Your task to perform on an android device: Go to location settings Image 0: 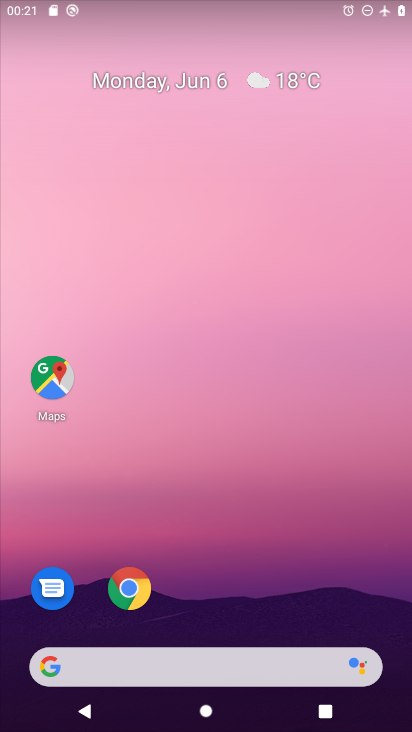
Step 0: drag from (361, 612) to (366, 321)
Your task to perform on an android device: Go to location settings Image 1: 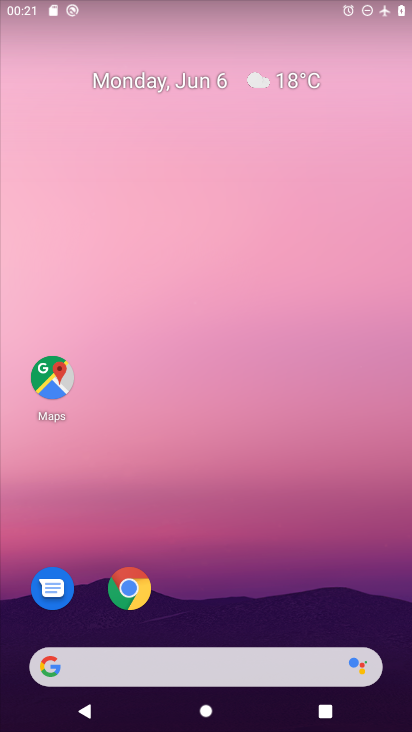
Step 1: drag from (364, 583) to (360, 177)
Your task to perform on an android device: Go to location settings Image 2: 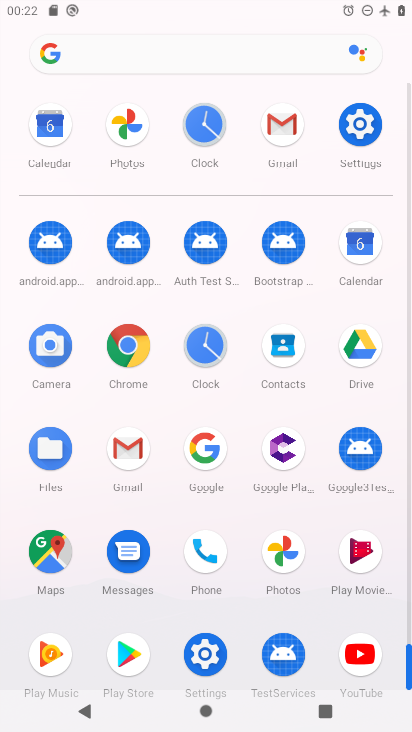
Step 2: click (215, 658)
Your task to perform on an android device: Go to location settings Image 3: 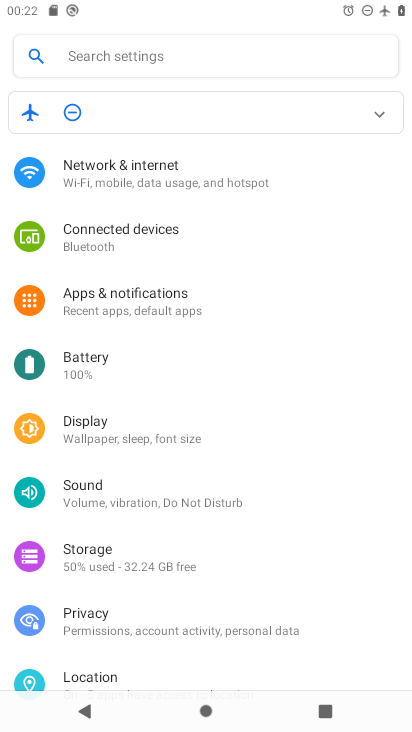
Step 3: drag from (349, 333) to (345, 397)
Your task to perform on an android device: Go to location settings Image 4: 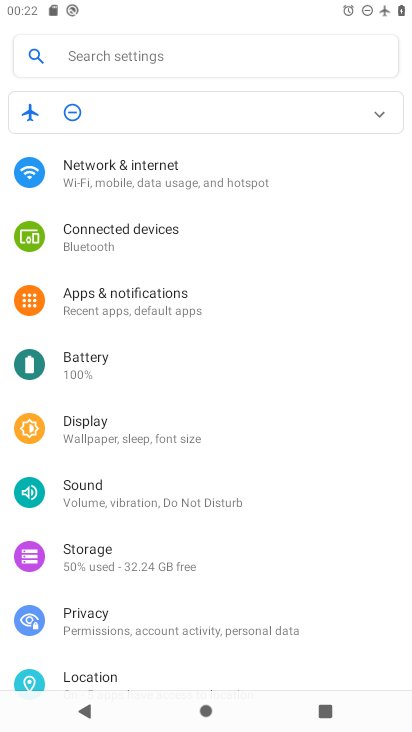
Step 4: drag from (350, 350) to (348, 389)
Your task to perform on an android device: Go to location settings Image 5: 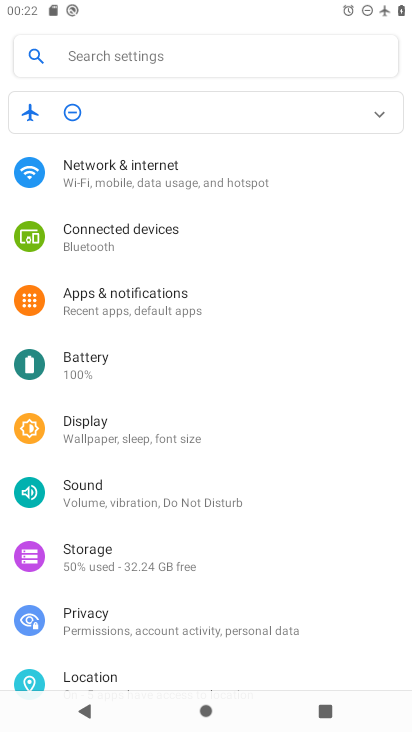
Step 5: drag from (213, 577) to (218, 477)
Your task to perform on an android device: Go to location settings Image 6: 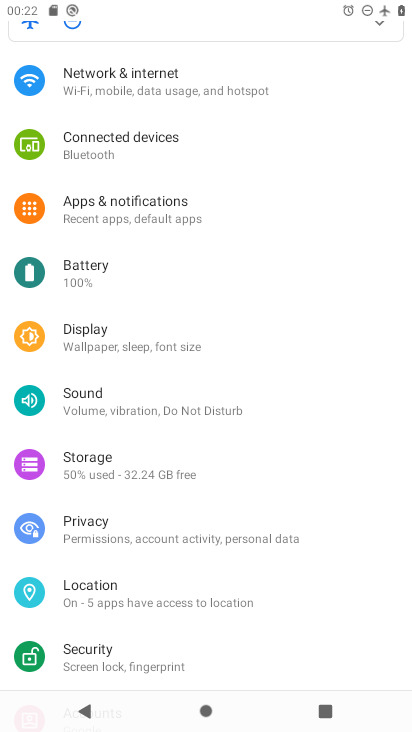
Step 6: click (201, 593)
Your task to perform on an android device: Go to location settings Image 7: 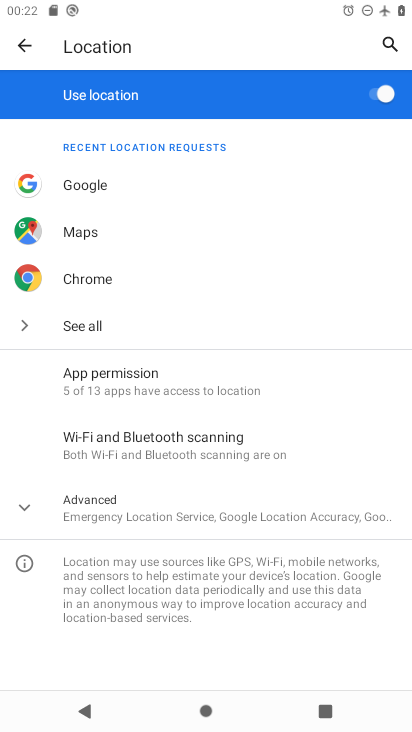
Step 7: click (99, 517)
Your task to perform on an android device: Go to location settings Image 8: 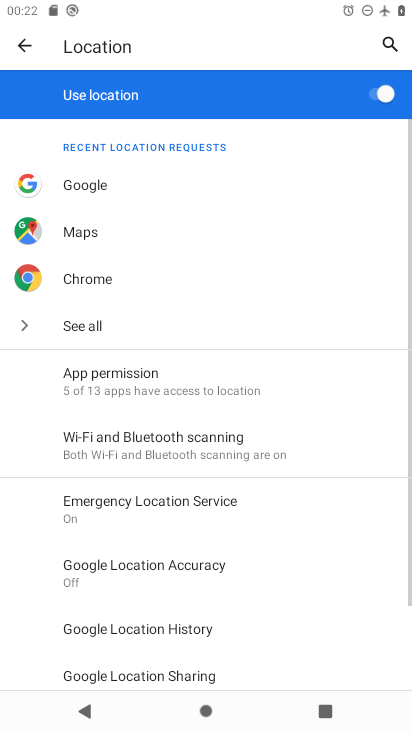
Step 8: task complete